Your task to perform on an android device: toggle sleep mode Image 0: 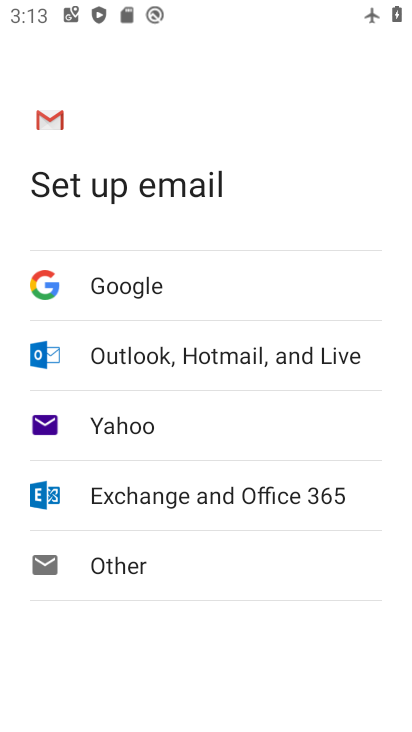
Step 0: press home button
Your task to perform on an android device: toggle sleep mode Image 1: 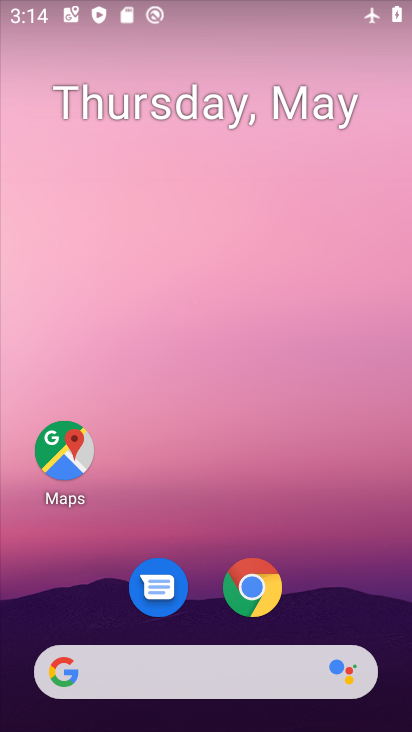
Step 1: drag from (252, 648) to (315, 288)
Your task to perform on an android device: toggle sleep mode Image 2: 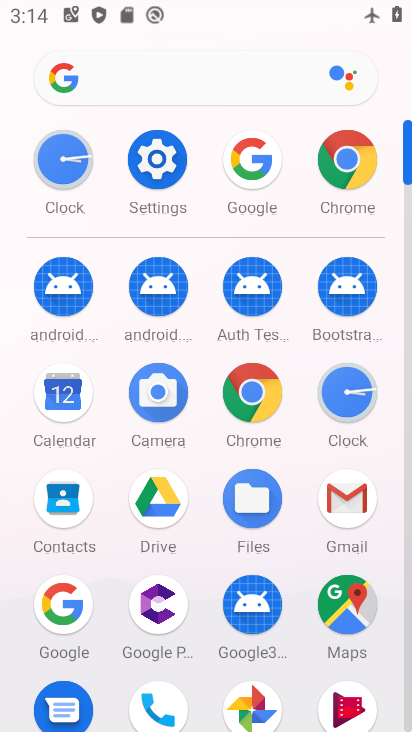
Step 2: click (160, 174)
Your task to perform on an android device: toggle sleep mode Image 3: 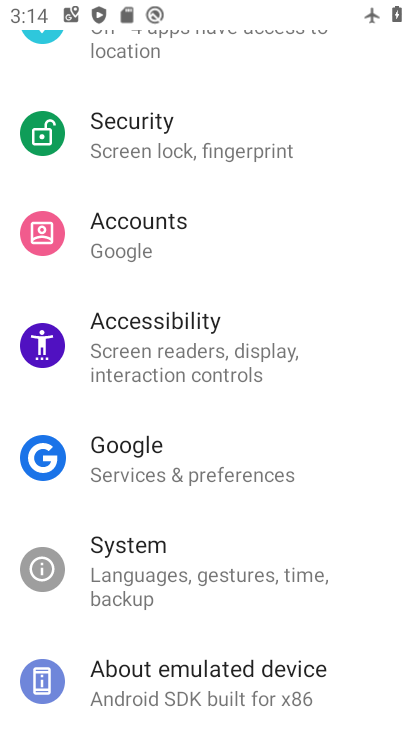
Step 3: drag from (222, 302) to (180, 582)
Your task to perform on an android device: toggle sleep mode Image 4: 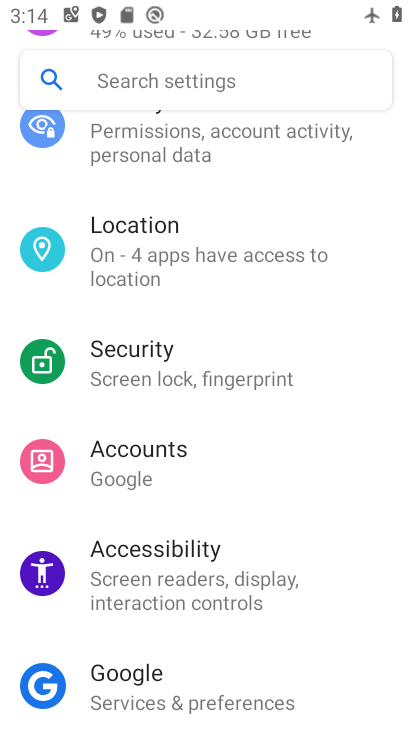
Step 4: drag from (203, 419) to (187, 656)
Your task to perform on an android device: toggle sleep mode Image 5: 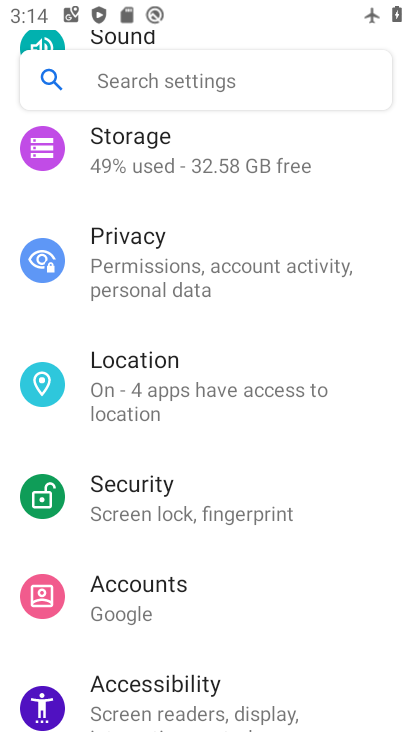
Step 5: drag from (247, 269) to (216, 690)
Your task to perform on an android device: toggle sleep mode Image 6: 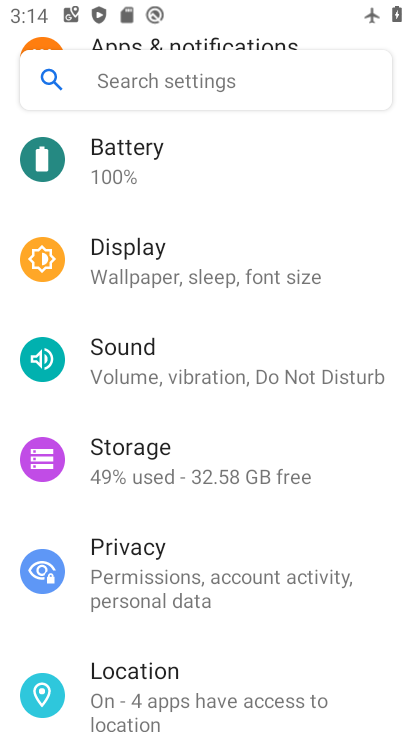
Step 6: click (219, 300)
Your task to perform on an android device: toggle sleep mode Image 7: 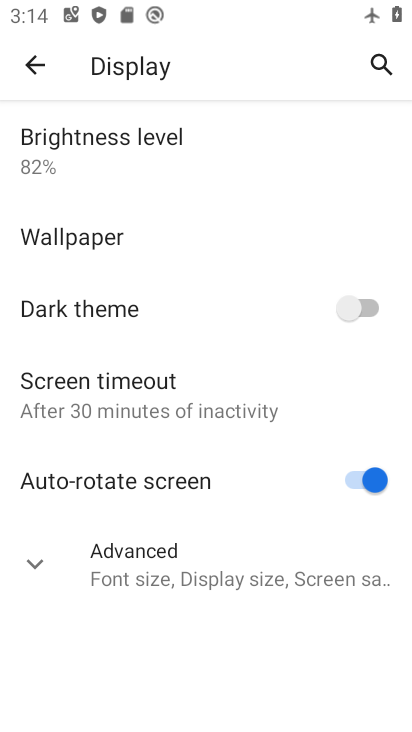
Step 7: task complete